Your task to perform on an android device: toggle improve location accuracy Image 0: 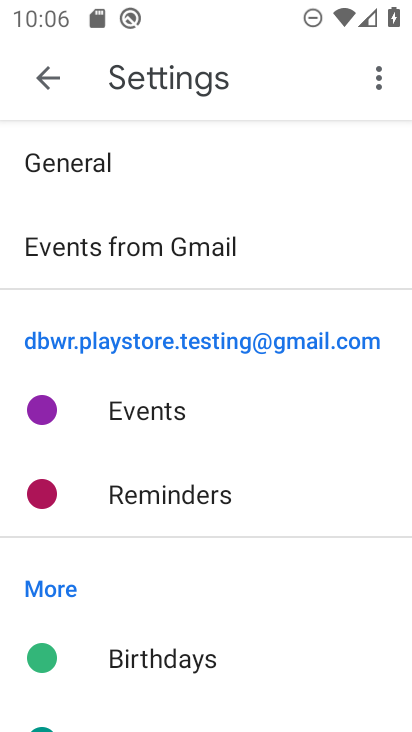
Step 0: press home button
Your task to perform on an android device: toggle improve location accuracy Image 1: 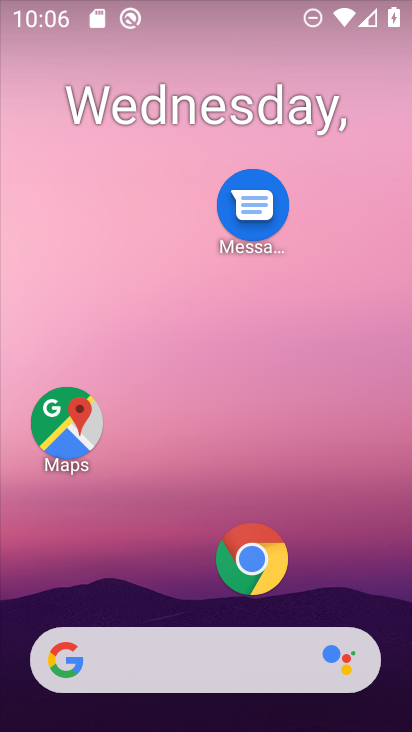
Step 1: drag from (180, 506) to (226, 228)
Your task to perform on an android device: toggle improve location accuracy Image 2: 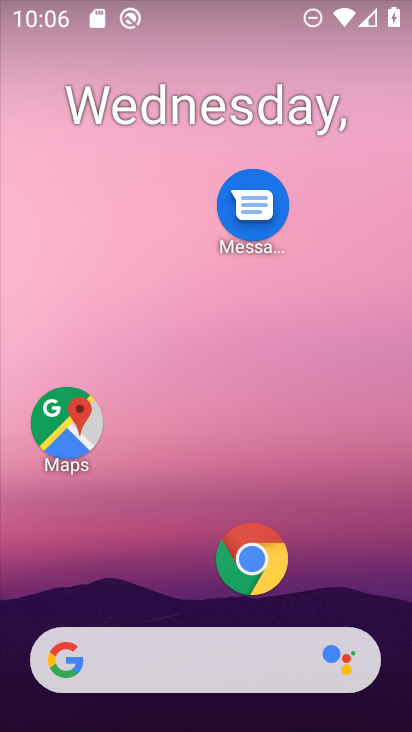
Step 2: drag from (180, 628) to (241, 50)
Your task to perform on an android device: toggle improve location accuracy Image 3: 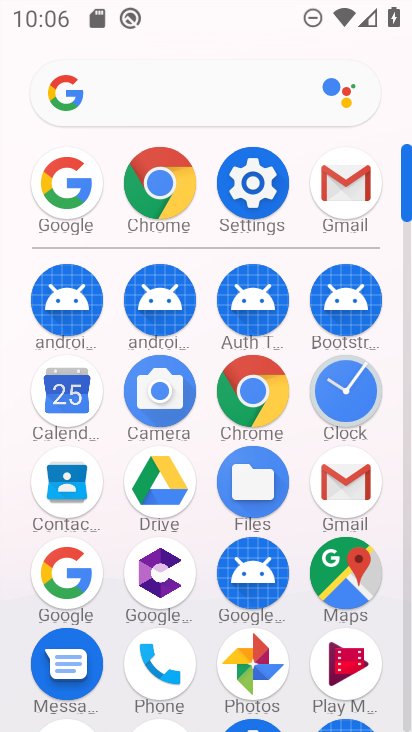
Step 3: click (258, 185)
Your task to perform on an android device: toggle improve location accuracy Image 4: 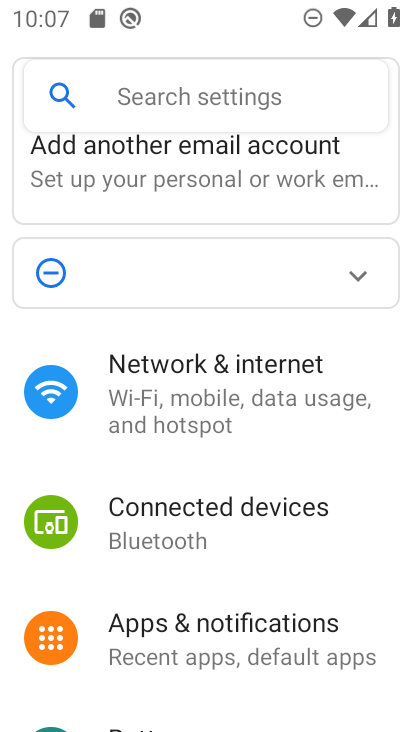
Step 4: drag from (204, 638) to (230, 281)
Your task to perform on an android device: toggle improve location accuracy Image 5: 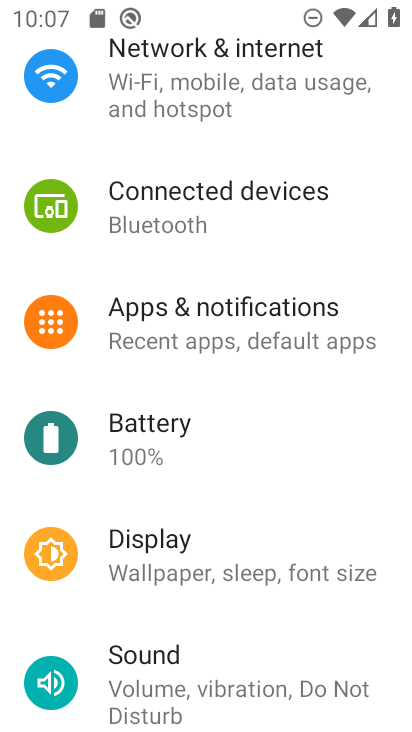
Step 5: drag from (202, 570) to (219, 263)
Your task to perform on an android device: toggle improve location accuracy Image 6: 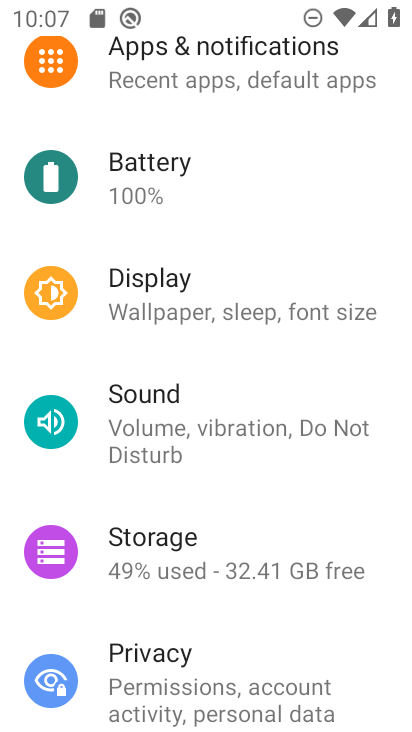
Step 6: drag from (193, 605) to (201, 371)
Your task to perform on an android device: toggle improve location accuracy Image 7: 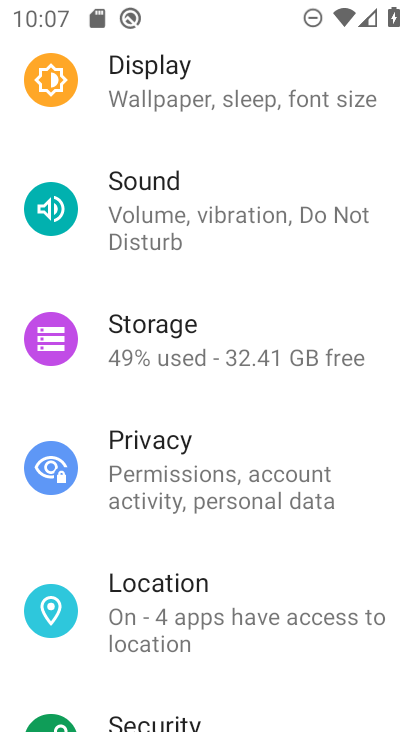
Step 7: click (212, 610)
Your task to perform on an android device: toggle improve location accuracy Image 8: 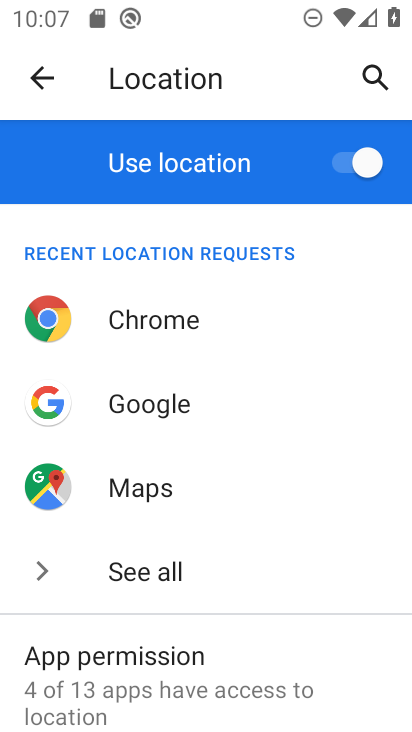
Step 8: drag from (187, 637) to (265, 28)
Your task to perform on an android device: toggle improve location accuracy Image 9: 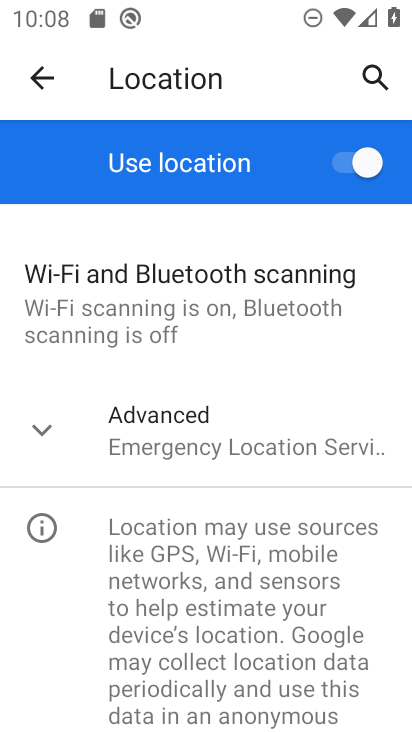
Step 9: click (161, 423)
Your task to perform on an android device: toggle improve location accuracy Image 10: 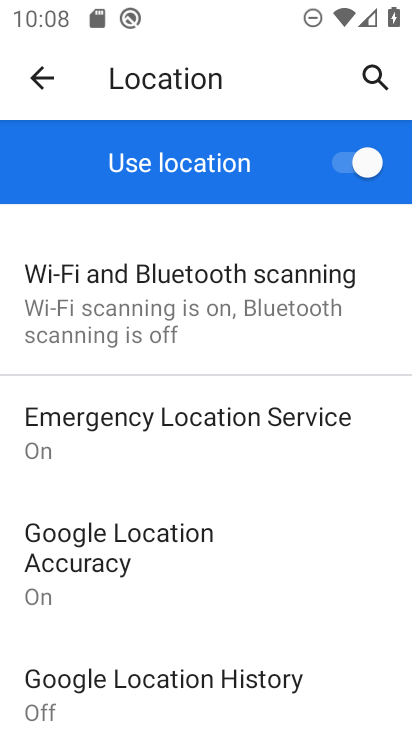
Step 10: click (178, 535)
Your task to perform on an android device: toggle improve location accuracy Image 11: 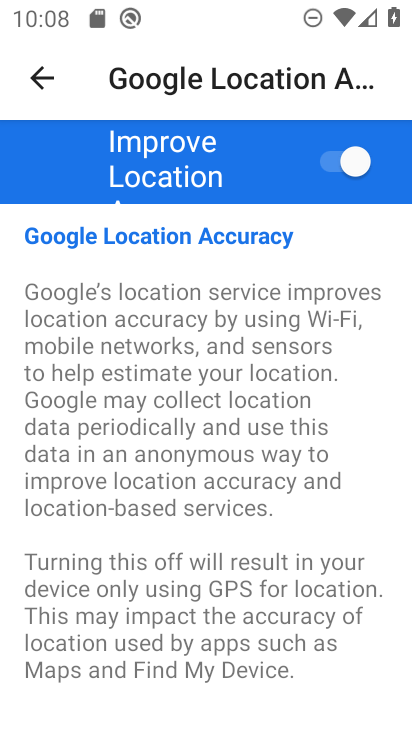
Step 11: click (334, 169)
Your task to perform on an android device: toggle improve location accuracy Image 12: 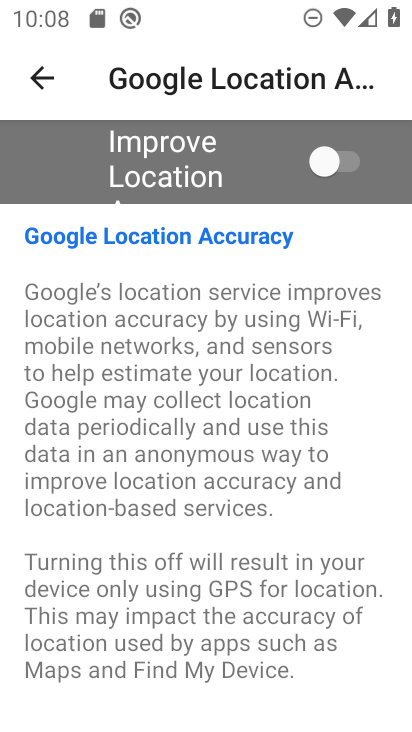
Step 12: task complete